Your task to perform on an android device: turn on notifications settings in the gmail app Image 0: 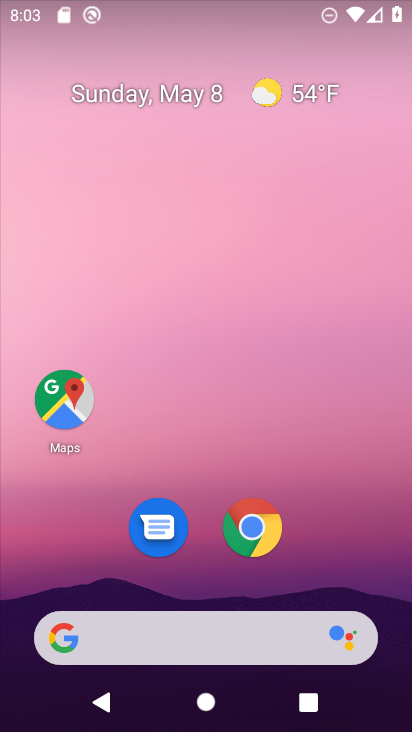
Step 0: drag from (337, 578) to (342, 379)
Your task to perform on an android device: turn on notifications settings in the gmail app Image 1: 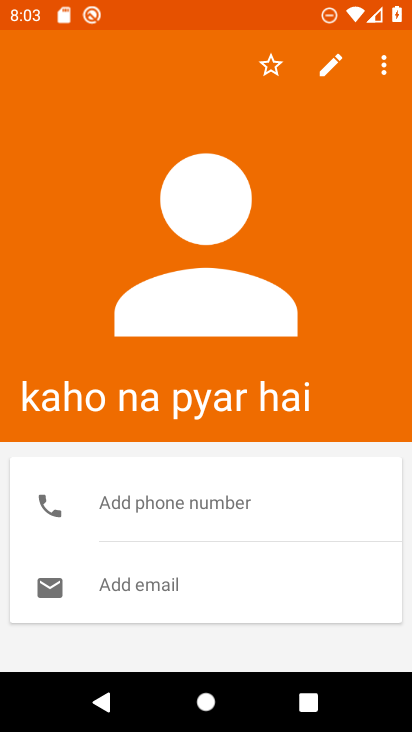
Step 1: press home button
Your task to perform on an android device: turn on notifications settings in the gmail app Image 2: 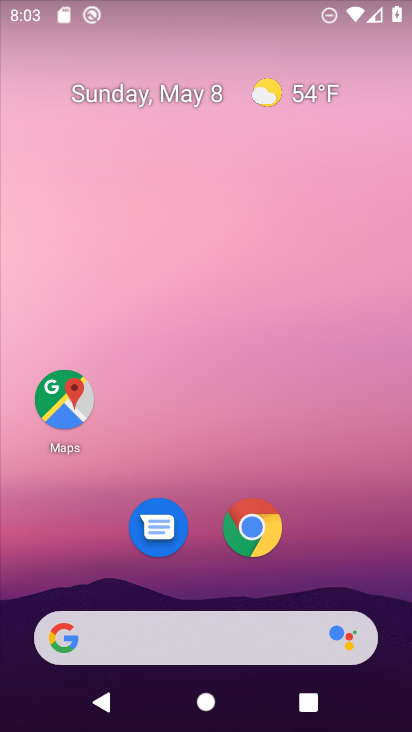
Step 2: drag from (340, 537) to (318, 90)
Your task to perform on an android device: turn on notifications settings in the gmail app Image 3: 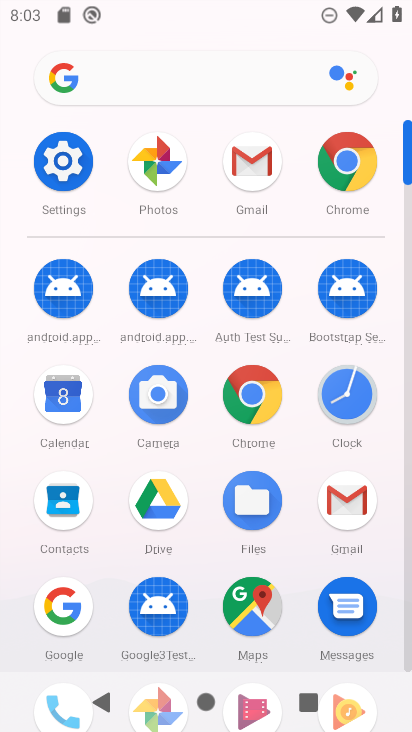
Step 3: click (349, 495)
Your task to perform on an android device: turn on notifications settings in the gmail app Image 4: 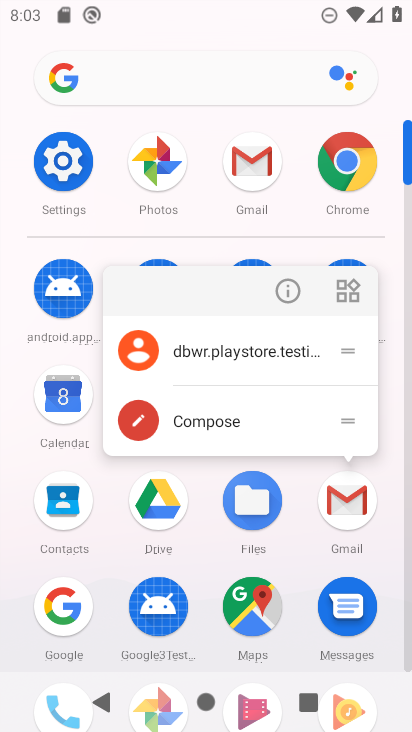
Step 4: click (351, 515)
Your task to perform on an android device: turn on notifications settings in the gmail app Image 5: 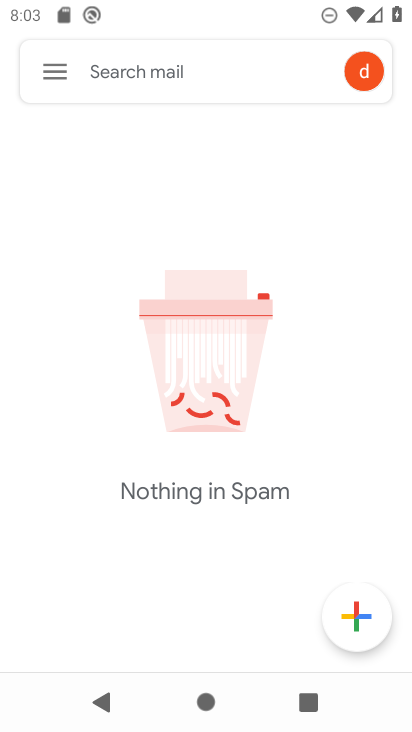
Step 5: click (45, 70)
Your task to perform on an android device: turn on notifications settings in the gmail app Image 6: 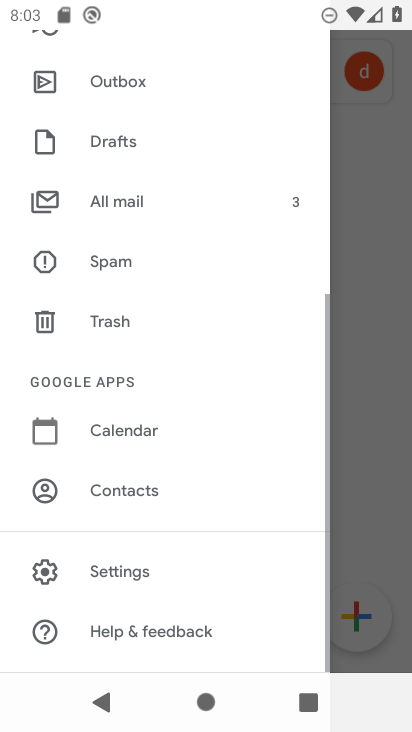
Step 6: click (123, 578)
Your task to perform on an android device: turn on notifications settings in the gmail app Image 7: 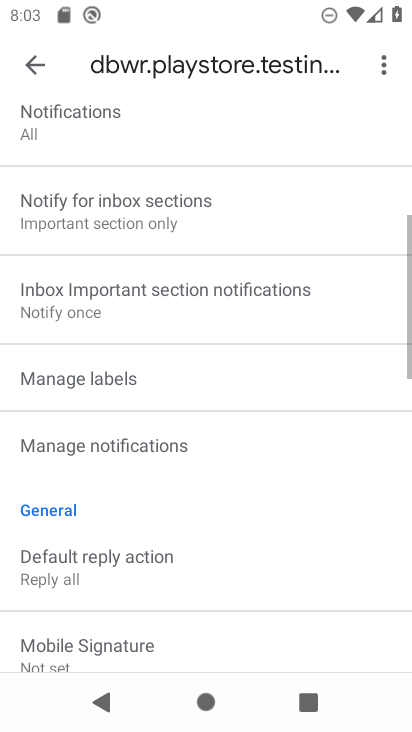
Step 7: drag from (175, 586) to (270, 226)
Your task to perform on an android device: turn on notifications settings in the gmail app Image 8: 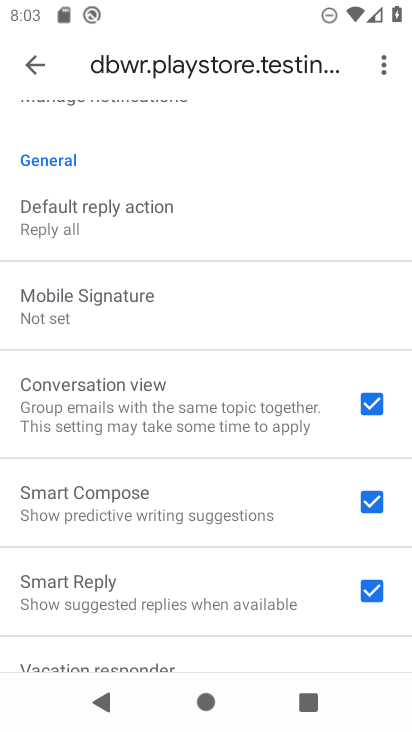
Step 8: drag from (205, 560) to (280, 226)
Your task to perform on an android device: turn on notifications settings in the gmail app Image 9: 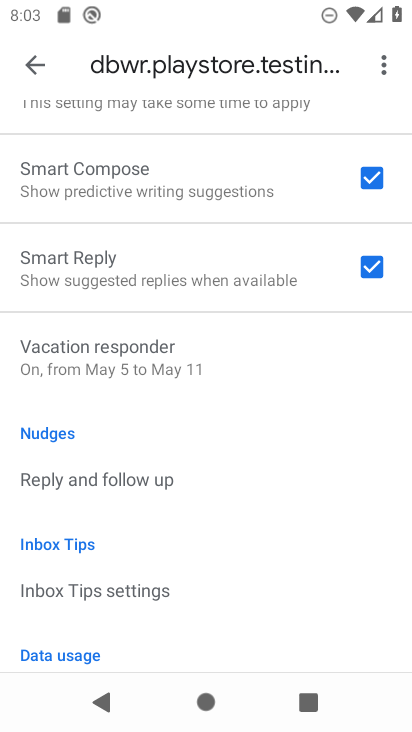
Step 9: drag from (291, 616) to (263, 140)
Your task to perform on an android device: turn on notifications settings in the gmail app Image 10: 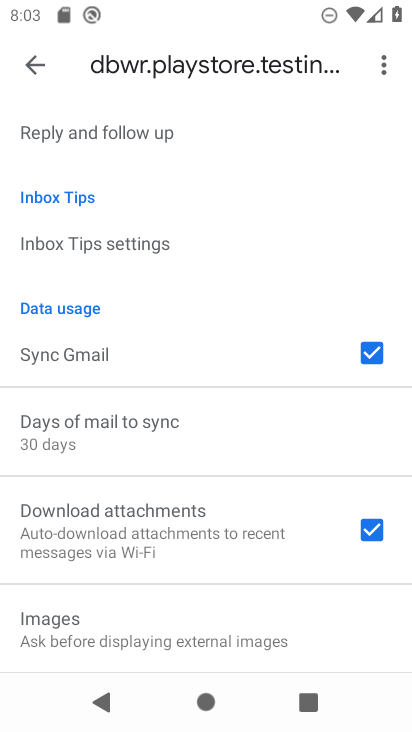
Step 10: drag from (233, 113) to (158, 603)
Your task to perform on an android device: turn on notifications settings in the gmail app Image 11: 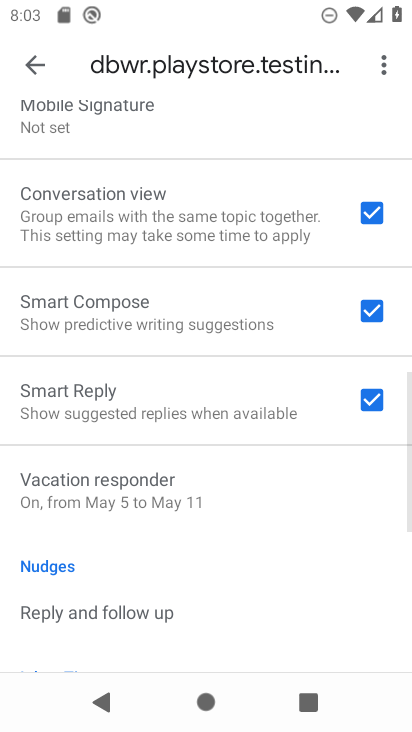
Step 11: drag from (201, 226) to (168, 650)
Your task to perform on an android device: turn on notifications settings in the gmail app Image 12: 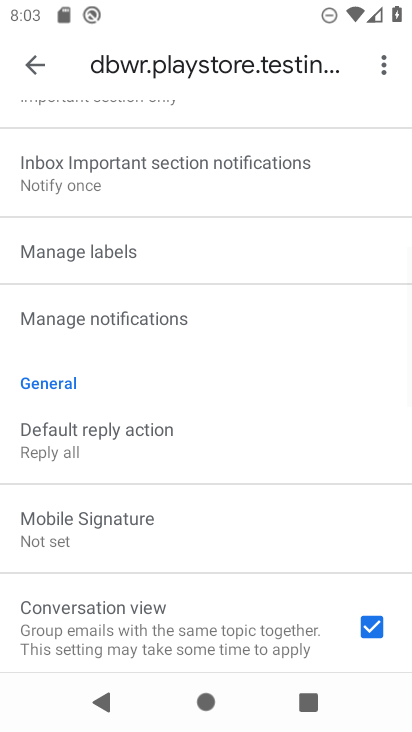
Step 12: drag from (220, 314) to (195, 634)
Your task to perform on an android device: turn on notifications settings in the gmail app Image 13: 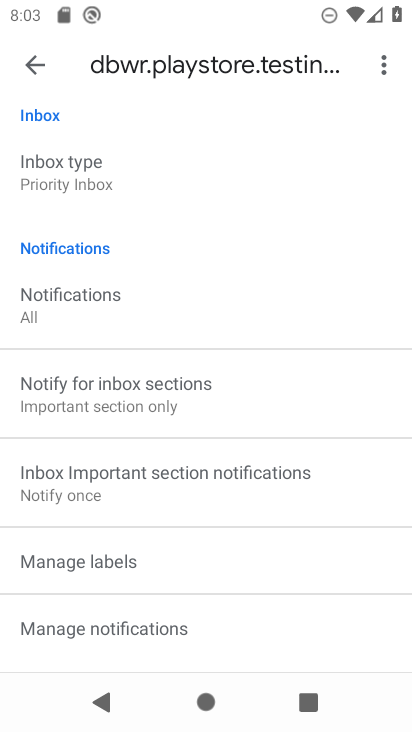
Step 13: click (137, 631)
Your task to perform on an android device: turn on notifications settings in the gmail app Image 14: 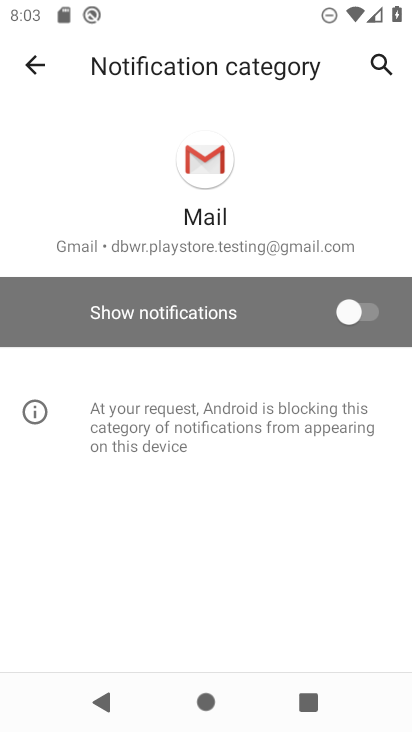
Step 14: click (363, 307)
Your task to perform on an android device: turn on notifications settings in the gmail app Image 15: 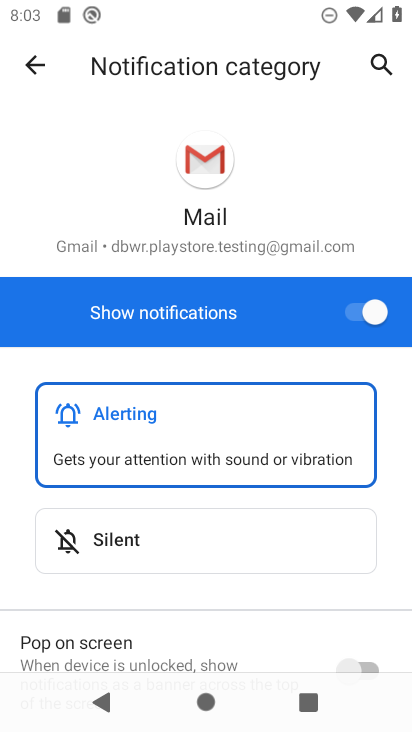
Step 15: task complete